Your task to perform on an android device: open chrome and create a bookmark for the current page Image 0: 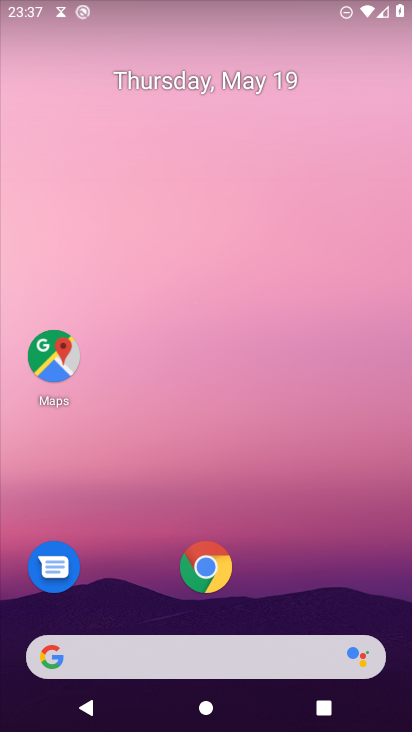
Step 0: click (201, 561)
Your task to perform on an android device: open chrome and create a bookmark for the current page Image 1: 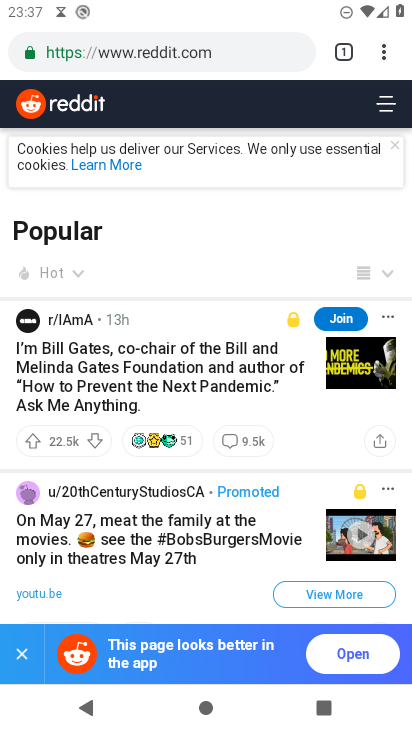
Step 1: click (379, 43)
Your task to perform on an android device: open chrome and create a bookmark for the current page Image 2: 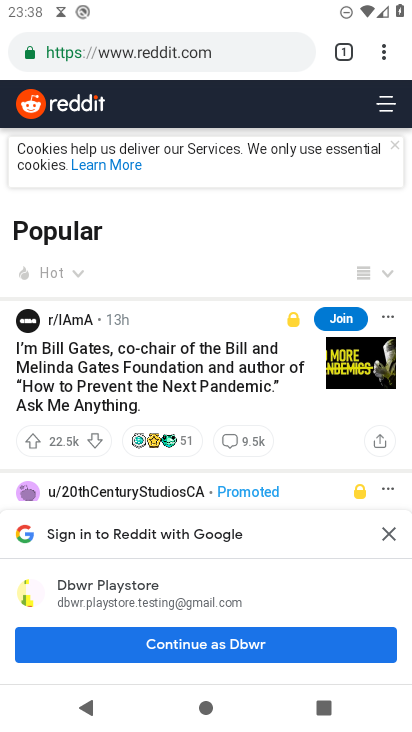
Step 2: click (390, 45)
Your task to perform on an android device: open chrome and create a bookmark for the current page Image 3: 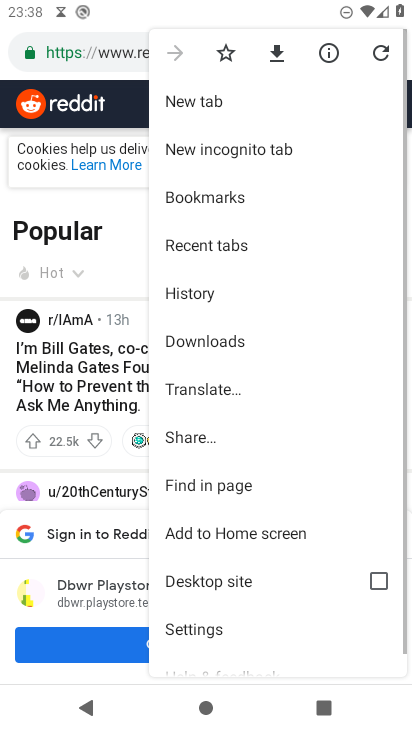
Step 3: click (229, 51)
Your task to perform on an android device: open chrome and create a bookmark for the current page Image 4: 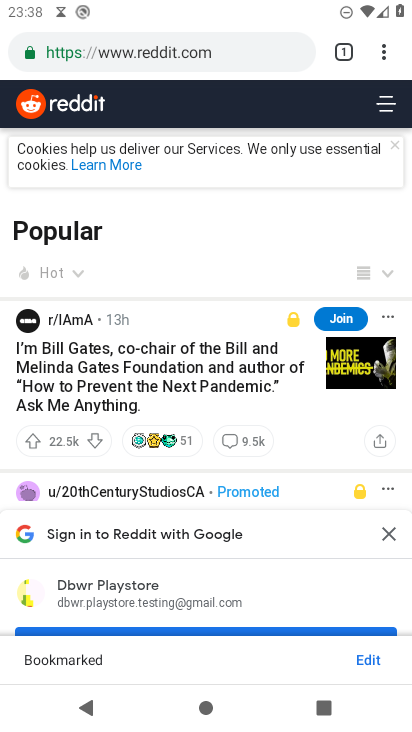
Step 4: task complete